Your task to perform on an android device: What is the recent news? Image 0: 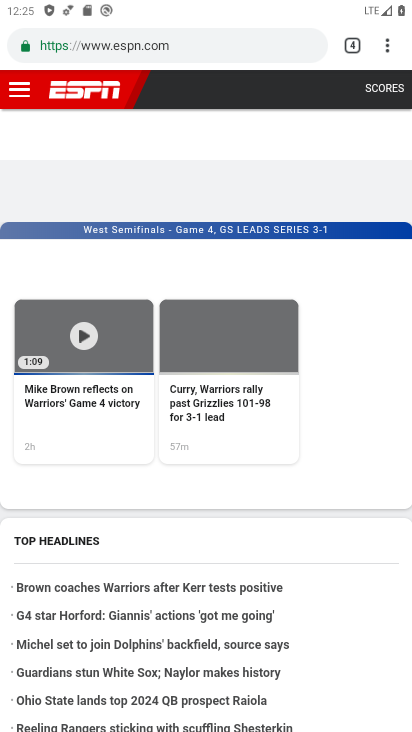
Step 0: press home button
Your task to perform on an android device: What is the recent news? Image 1: 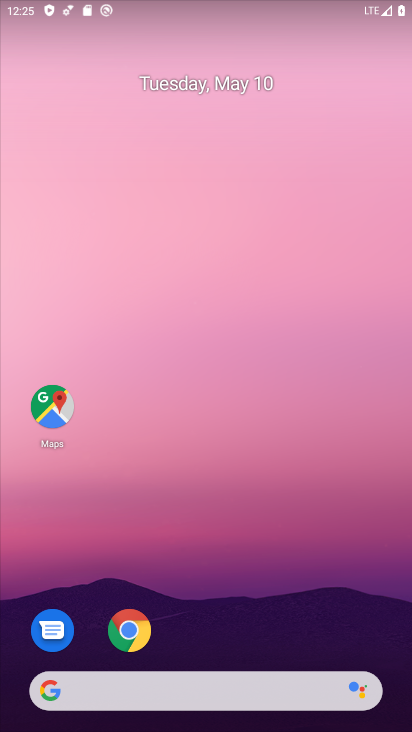
Step 1: task complete